Your task to perform on an android device: toggle javascript in the chrome app Image 0: 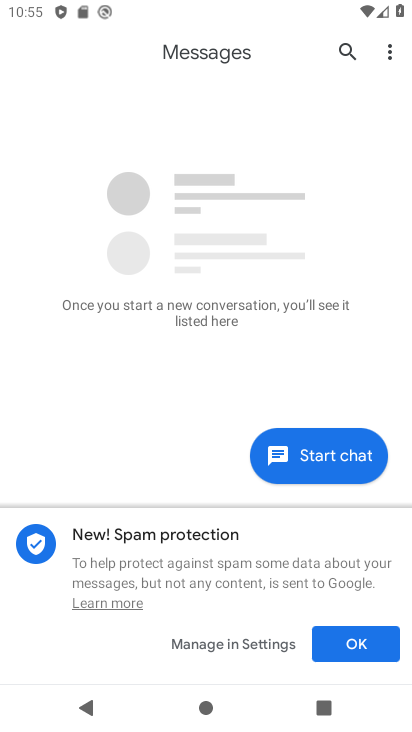
Step 0: press home button
Your task to perform on an android device: toggle javascript in the chrome app Image 1: 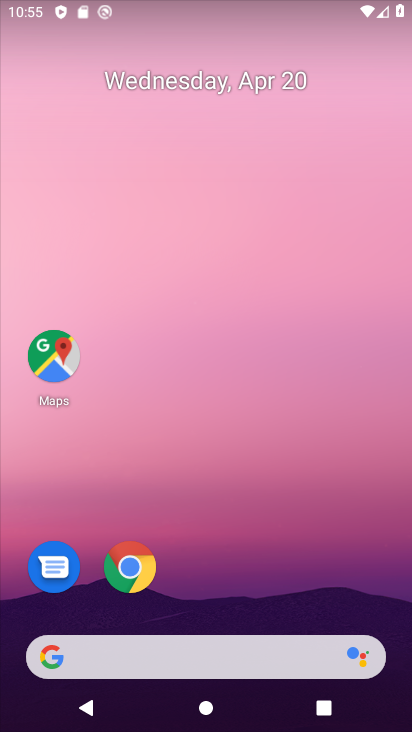
Step 1: click (128, 560)
Your task to perform on an android device: toggle javascript in the chrome app Image 2: 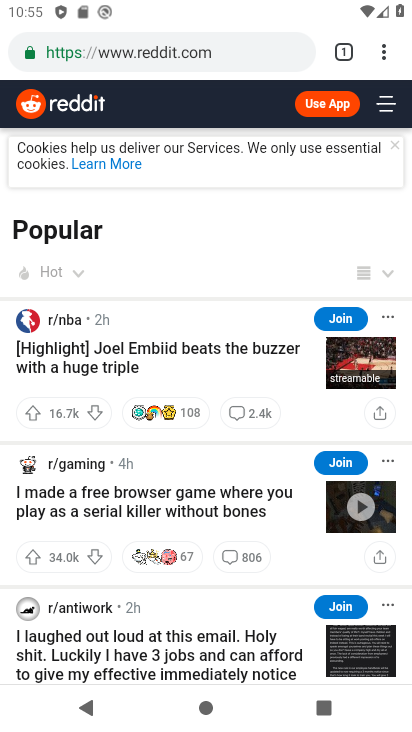
Step 2: drag from (388, 46) to (206, 601)
Your task to perform on an android device: toggle javascript in the chrome app Image 3: 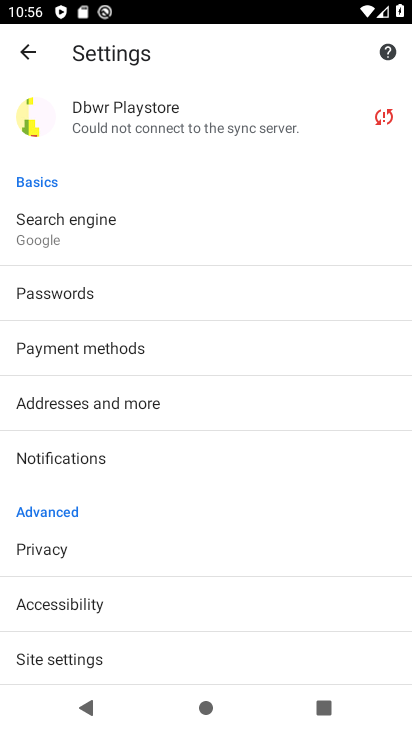
Step 3: drag from (113, 624) to (92, 474)
Your task to perform on an android device: toggle javascript in the chrome app Image 4: 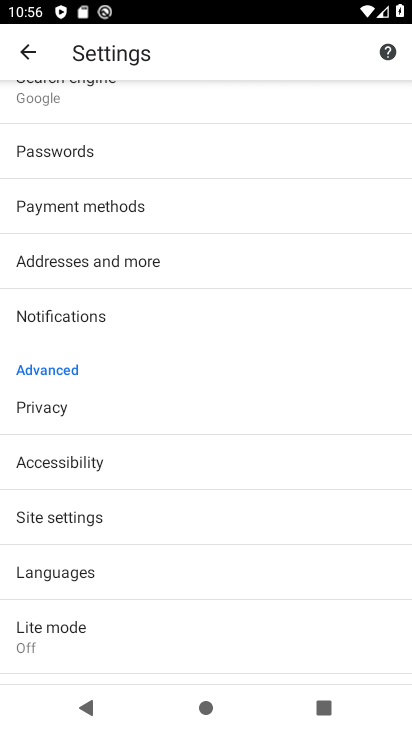
Step 4: click (74, 518)
Your task to perform on an android device: toggle javascript in the chrome app Image 5: 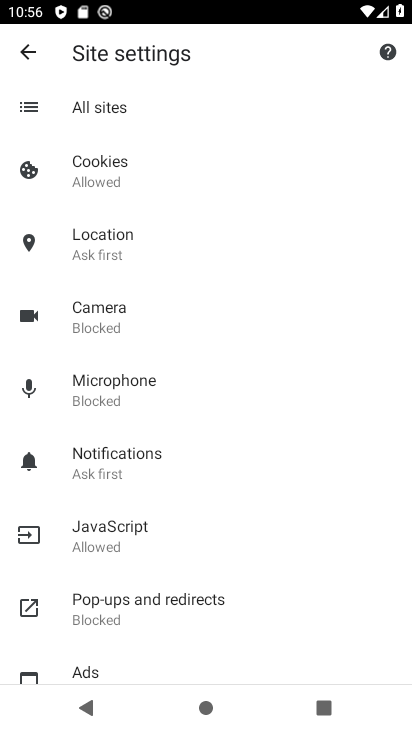
Step 5: click (160, 522)
Your task to perform on an android device: toggle javascript in the chrome app Image 6: 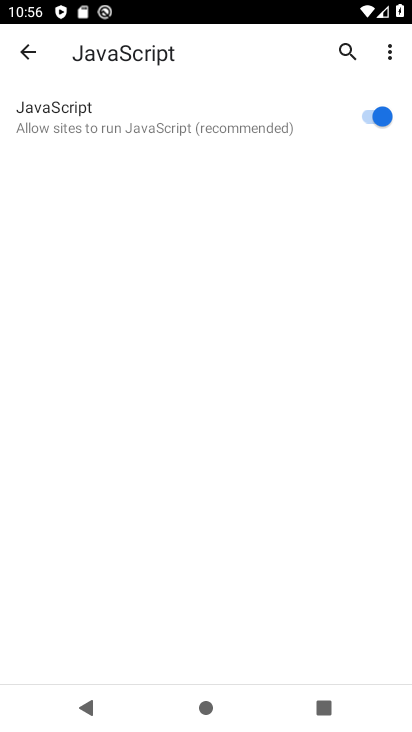
Step 6: click (359, 117)
Your task to perform on an android device: toggle javascript in the chrome app Image 7: 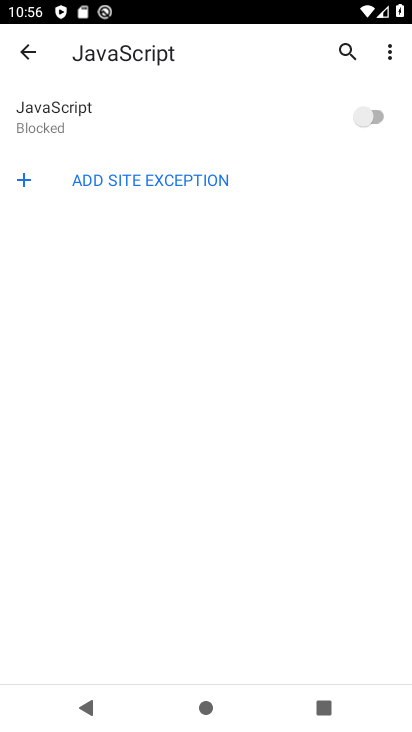
Step 7: task complete